Your task to perform on an android device: Search for a new eyeshadow Image 0: 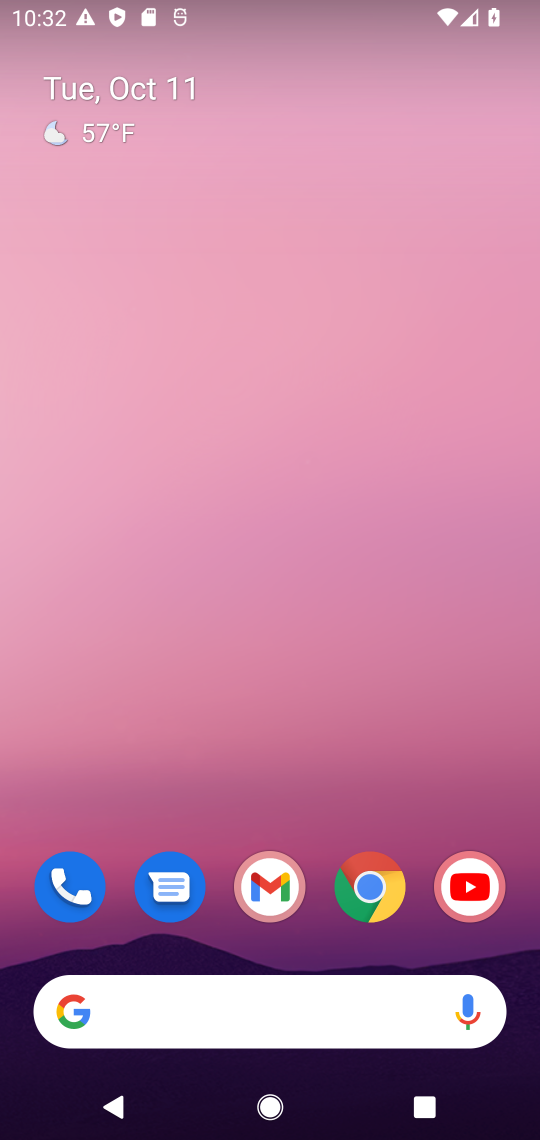
Step 0: press home button
Your task to perform on an android device: Search for a new eyeshadow Image 1: 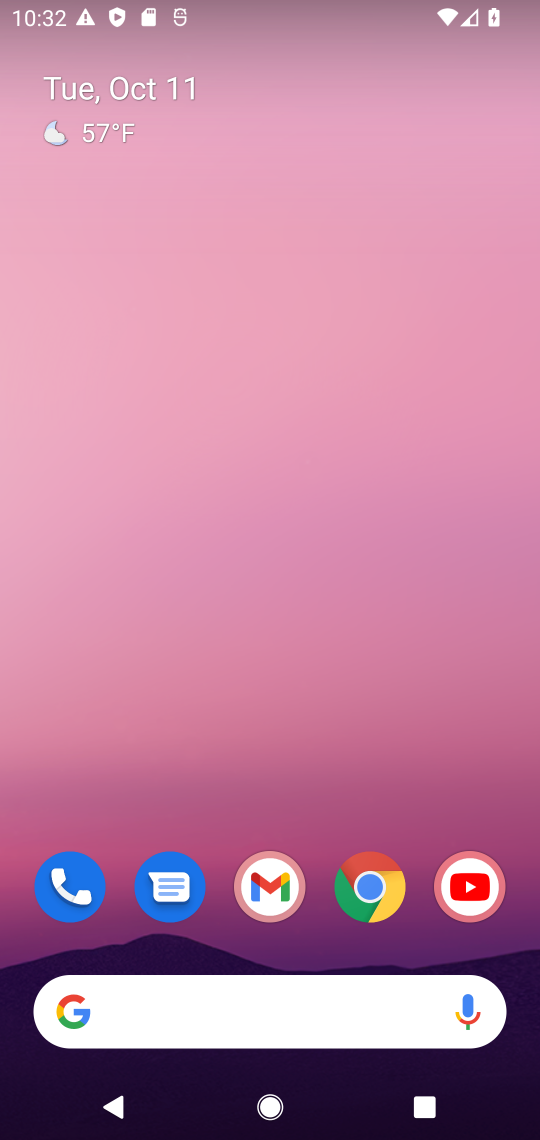
Step 1: click (288, 1017)
Your task to perform on an android device: Search for a new eyeshadow Image 2: 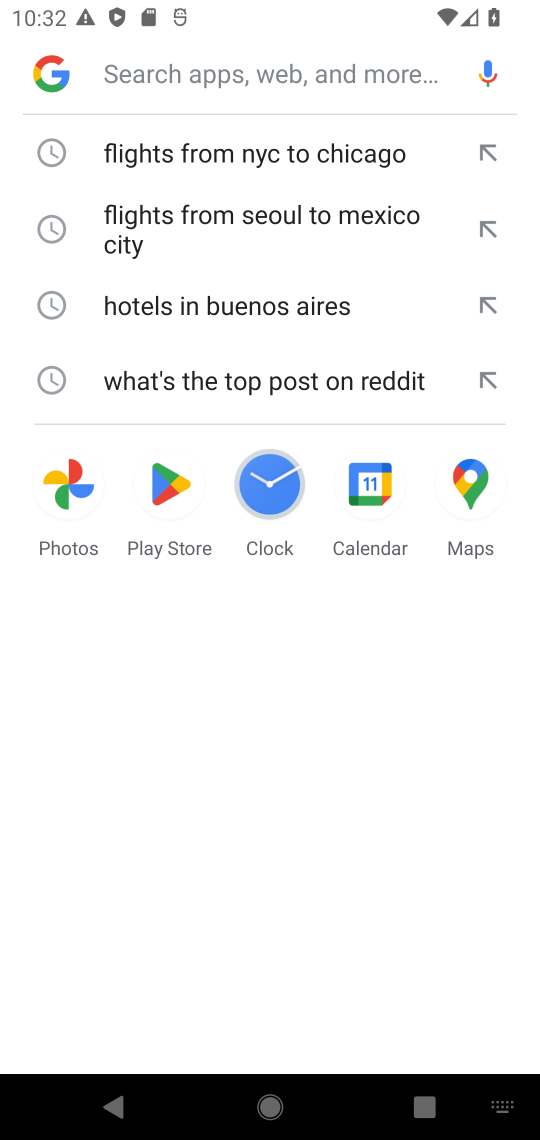
Step 2: type " new eyeshadow"
Your task to perform on an android device: Search for a new eyeshadow Image 3: 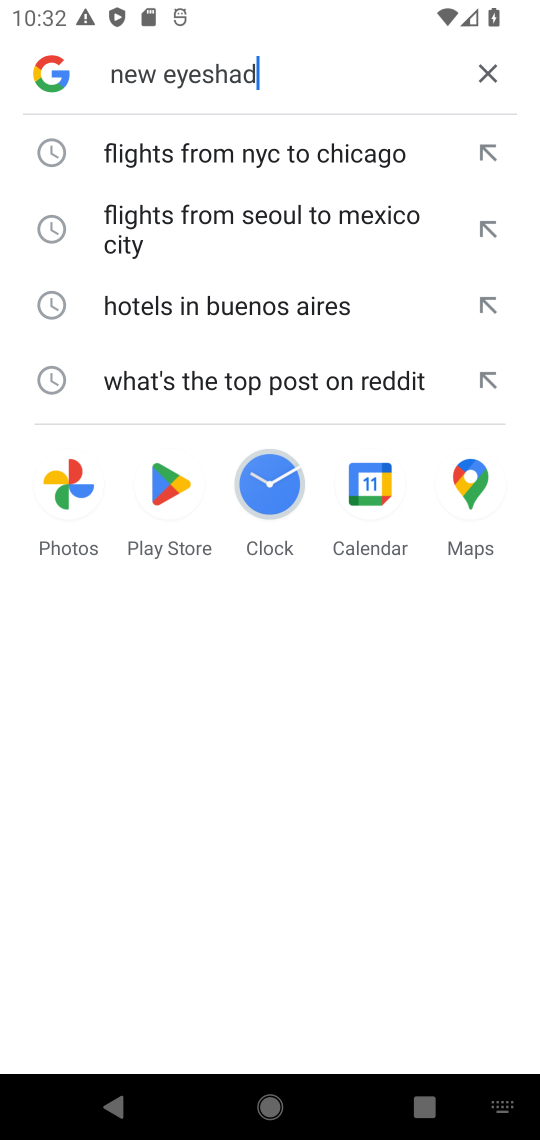
Step 3: press enter
Your task to perform on an android device: Search for a new eyeshadow Image 4: 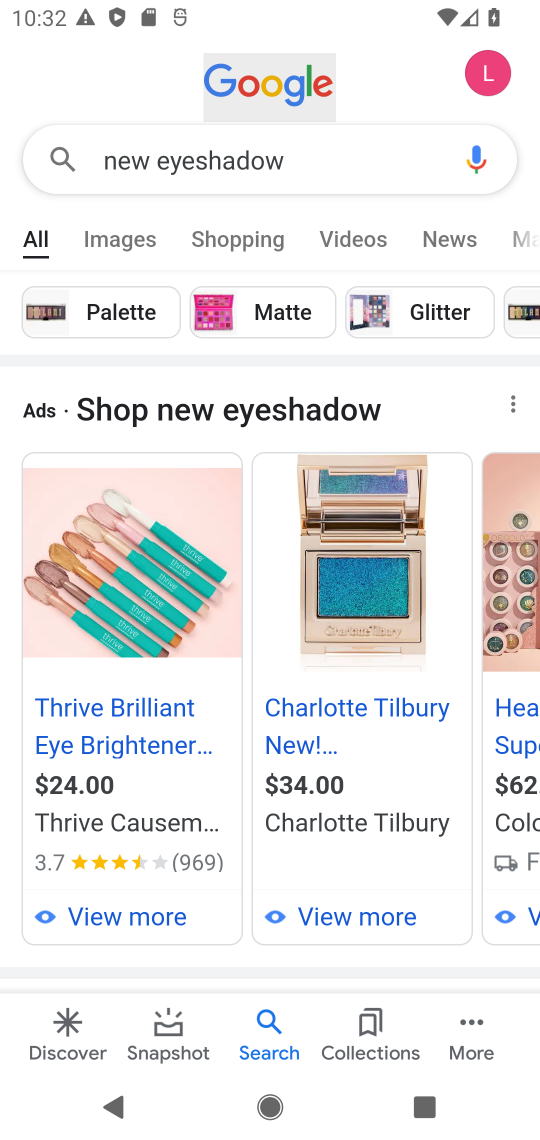
Step 4: drag from (390, 801) to (400, 639)
Your task to perform on an android device: Search for a new eyeshadow Image 5: 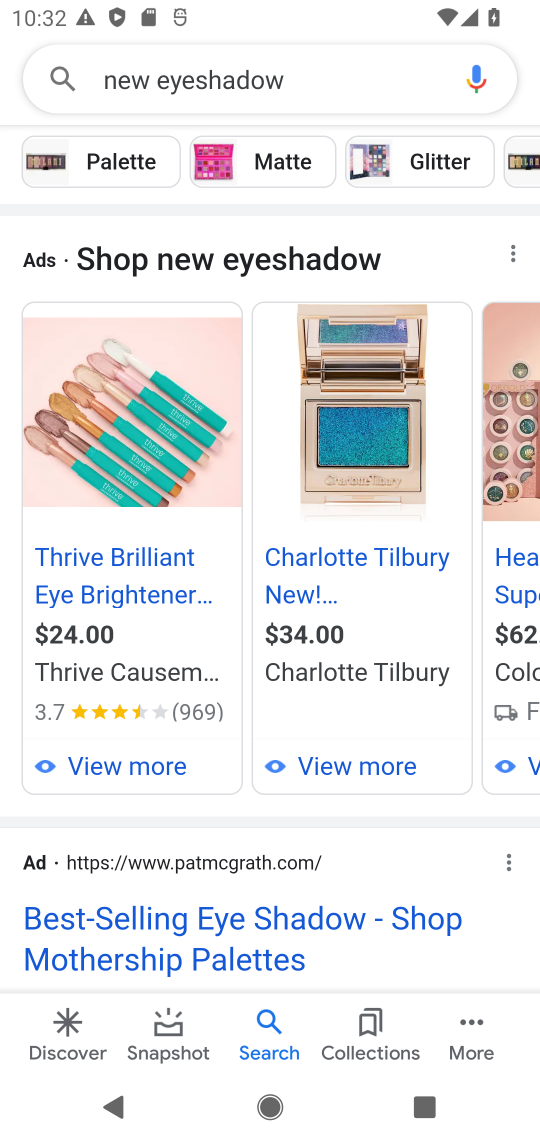
Step 5: drag from (365, 897) to (388, 724)
Your task to perform on an android device: Search for a new eyeshadow Image 6: 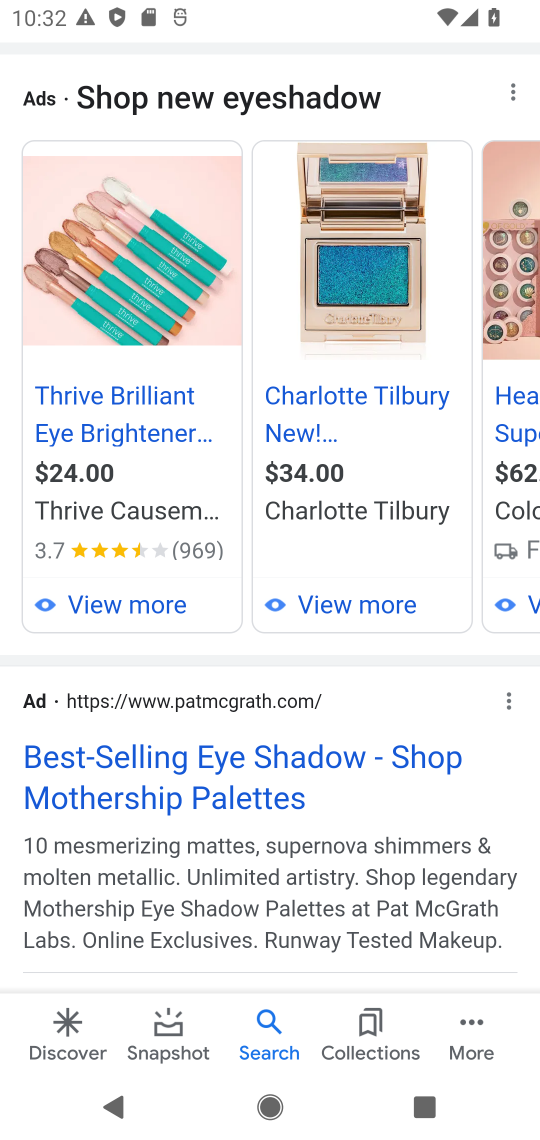
Step 6: drag from (324, 856) to (341, 657)
Your task to perform on an android device: Search for a new eyeshadow Image 7: 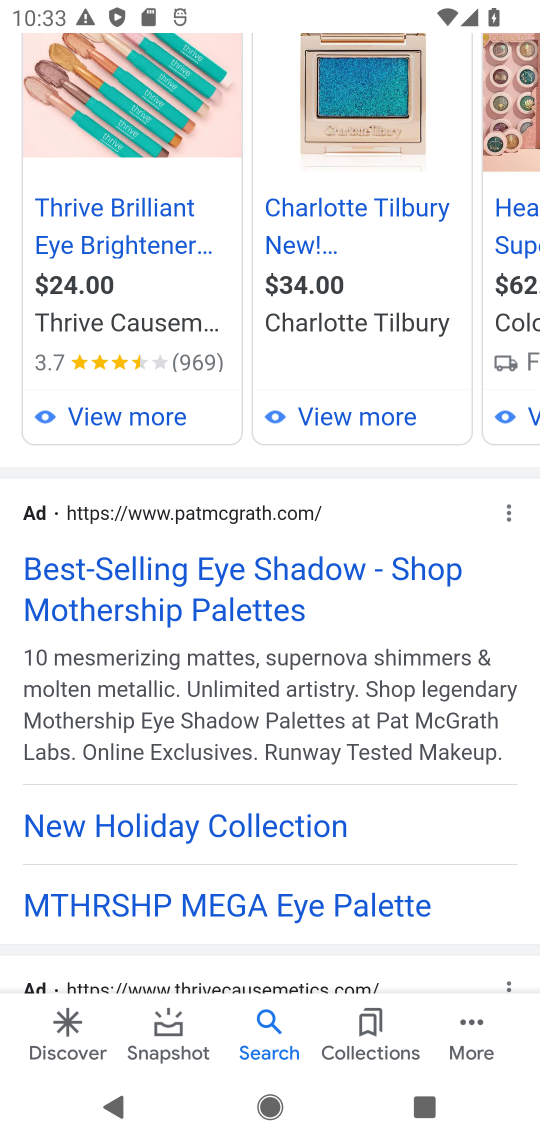
Step 7: click (291, 584)
Your task to perform on an android device: Search for a new eyeshadow Image 8: 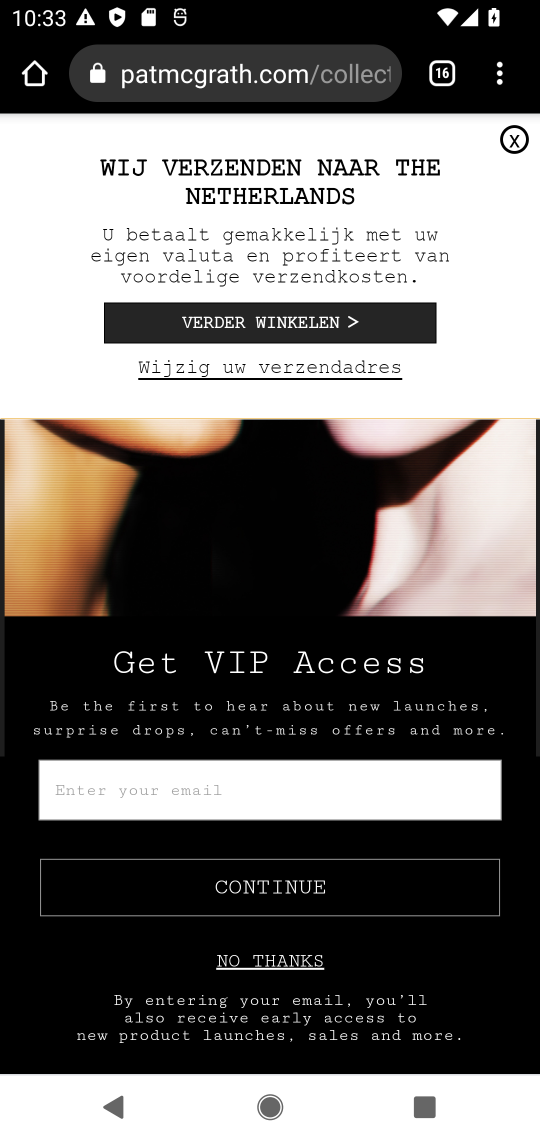
Step 8: click (370, 1006)
Your task to perform on an android device: Search for a new eyeshadow Image 9: 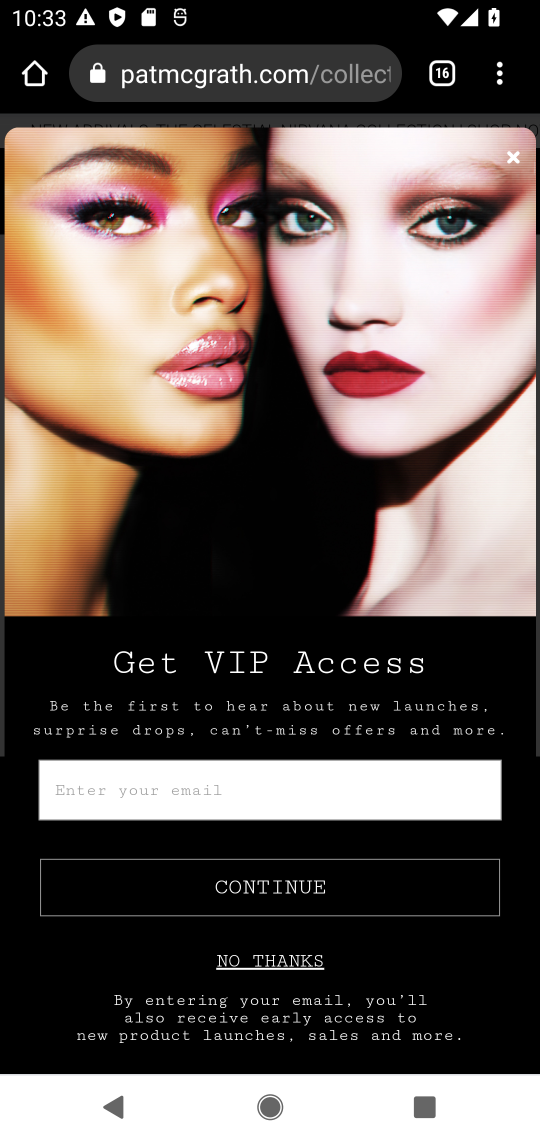
Step 9: task complete